Your task to perform on an android device: make emails show in primary in the gmail app Image 0: 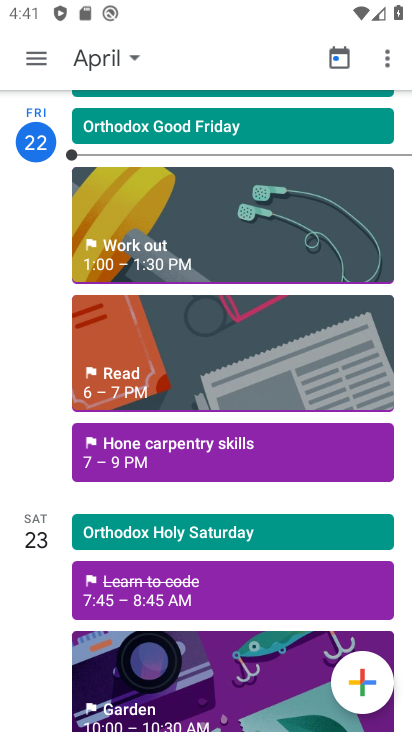
Step 0: press home button
Your task to perform on an android device: make emails show in primary in the gmail app Image 1: 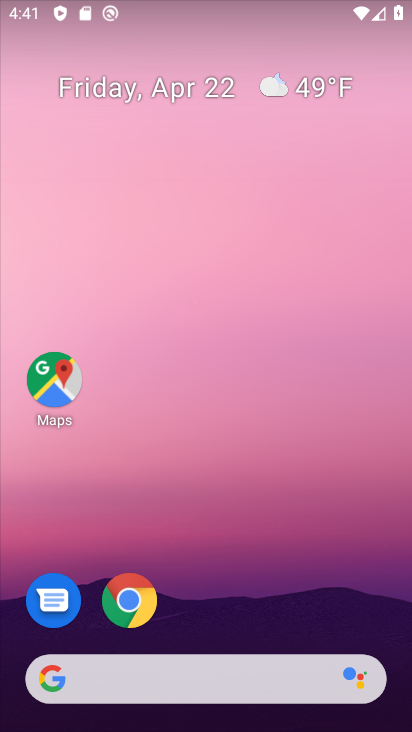
Step 1: drag from (230, 583) to (239, 4)
Your task to perform on an android device: make emails show in primary in the gmail app Image 2: 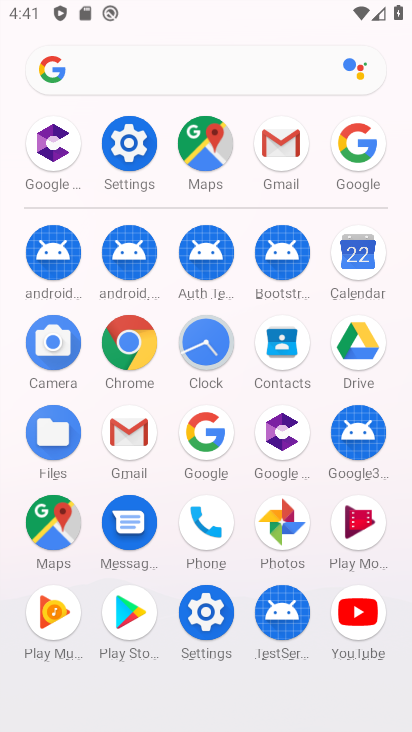
Step 2: click (279, 140)
Your task to perform on an android device: make emails show in primary in the gmail app Image 3: 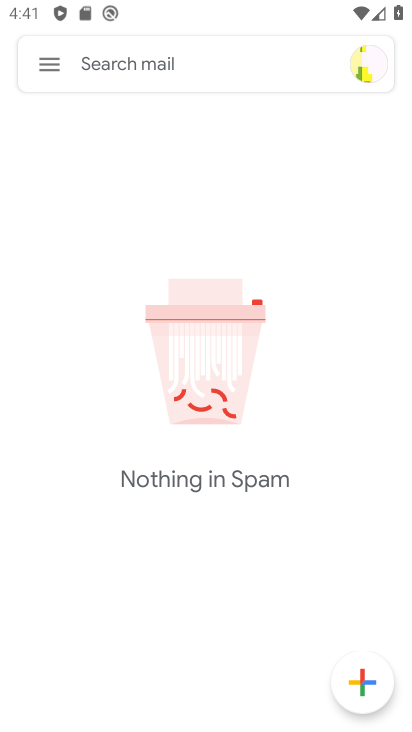
Step 3: click (44, 64)
Your task to perform on an android device: make emails show in primary in the gmail app Image 4: 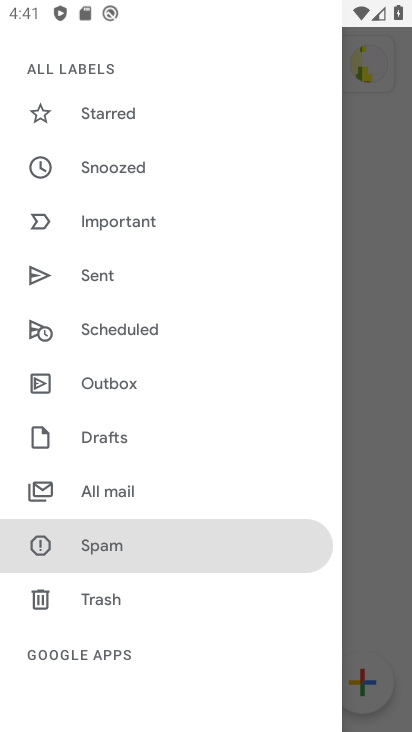
Step 4: drag from (152, 452) to (169, 277)
Your task to perform on an android device: make emails show in primary in the gmail app Image 5: 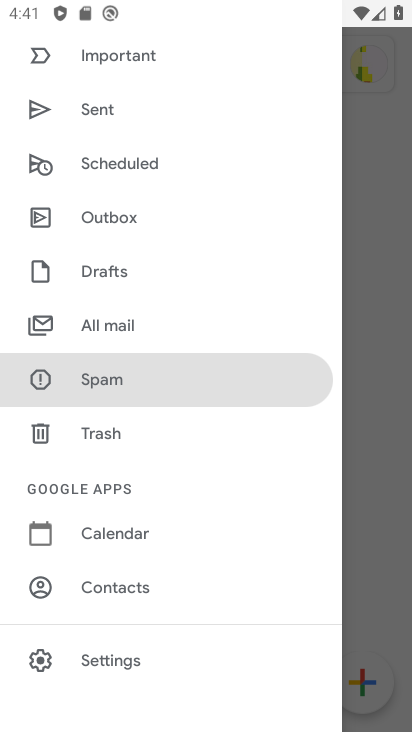
Step 5: click (101, 656)
Your task to perform on an android device: make emails show in primary in the gmail app Image 6: 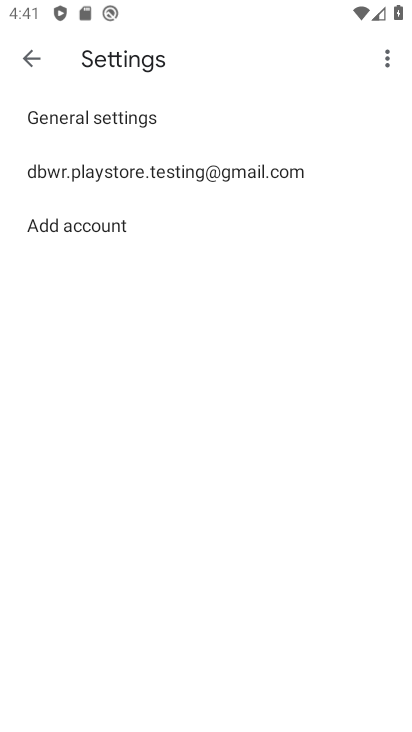
Step 6: click (188, 169)
Your task to perform on an android device: make emails show in primary in the gmail app Image 7: 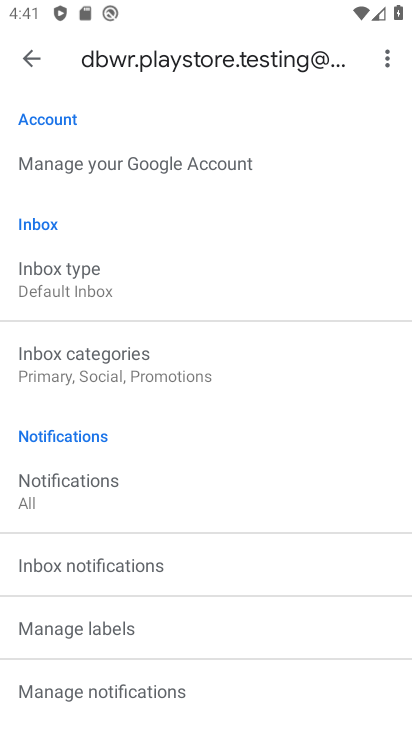
Step 7: click (109, 349)
Your task to perform on an android device: make emails show in primary in the gmail app Image 8: 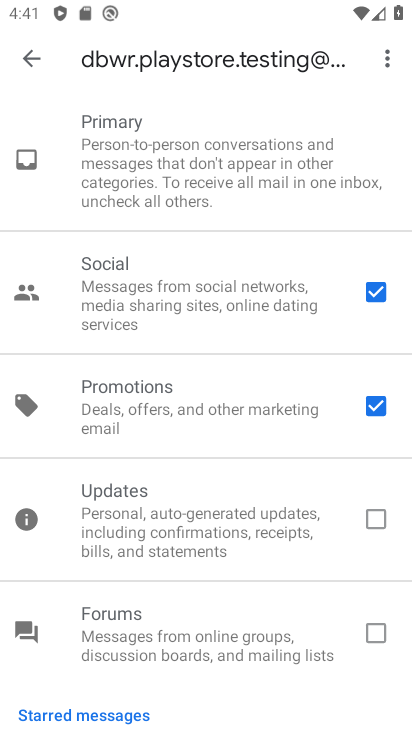
Step 8: click (377, 290)
Your task to perform on an android device: make emails show in primary in the gmail app Image 9: 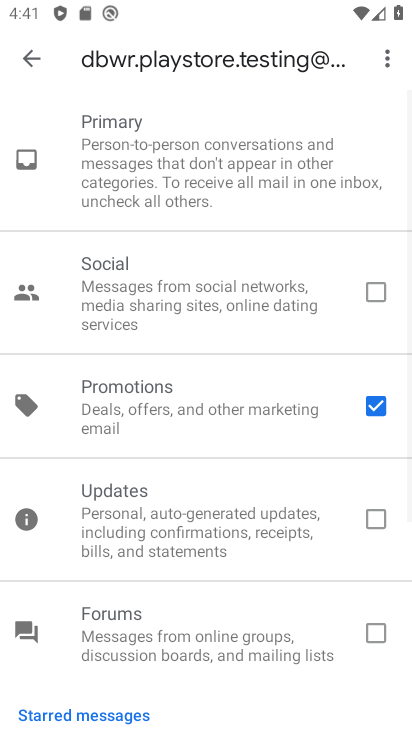
Step 9: click (375, 401)
Your task to perform on an android device: make emails show in primary in the gmail app Image 10: 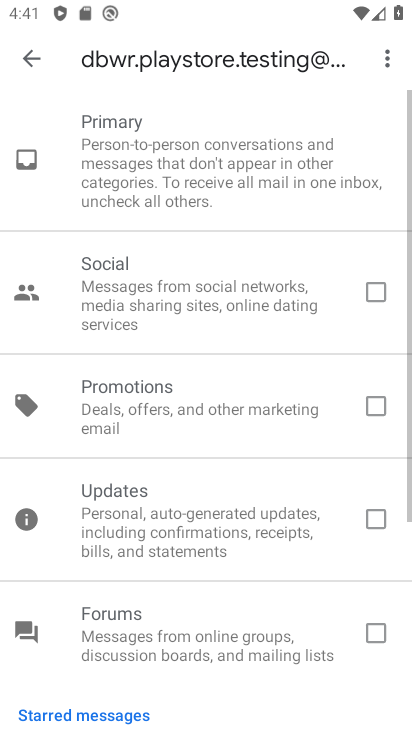
Step 10: task complete